Your task to perform on an android device: What's the weather today? Image 0: 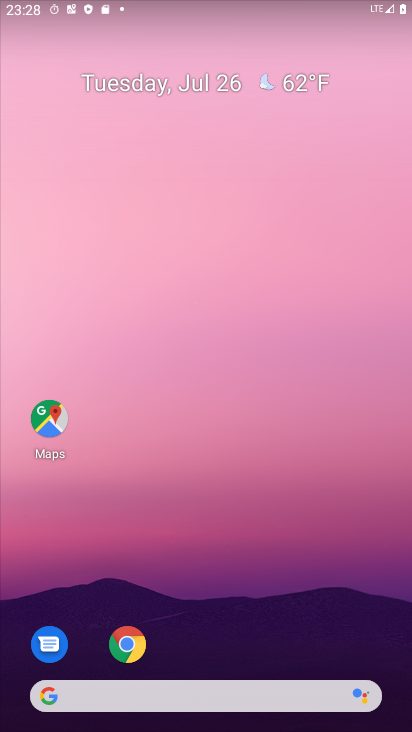
Step 0: click (153, 705)
Your task to perform on an android device: What's the weather today? Image 1: 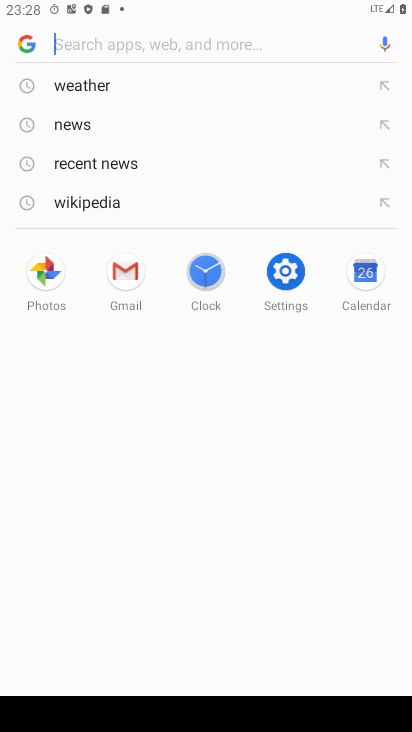
Step 1: click (68, 87)
Your task to perform on an android device: What's the weather today? Image 2: 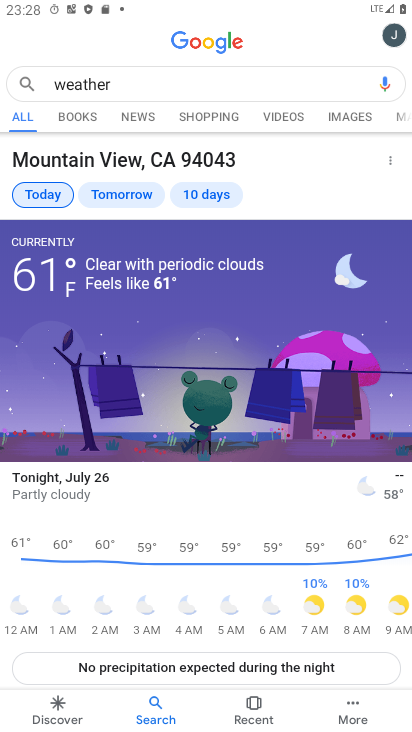
Step 2: task complete